Your task to perform on an android device: turn on the 12-hour format for clock Image 0: 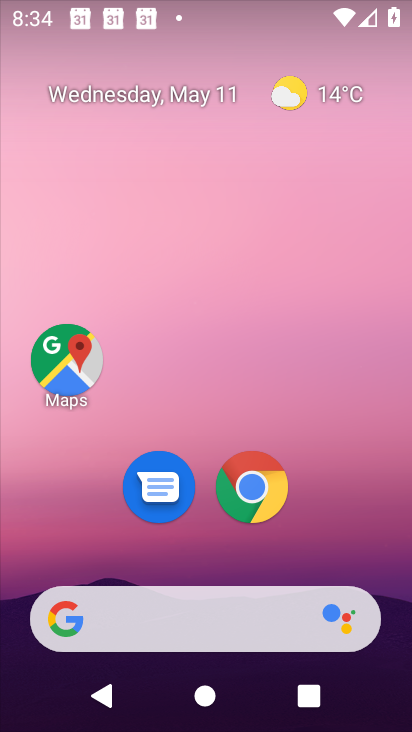
Step 0: drag from (224, 726) to (180, 42)
Your task to perform on an android device: turn on the 12-hour format for clock Image 1: 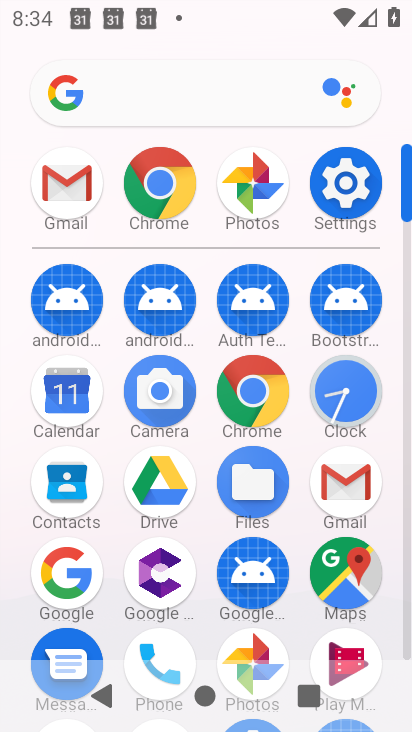
Step 1: click (351, 383)
Your task to perform on an android device: turn on the 12-hour format for clock Image 2: 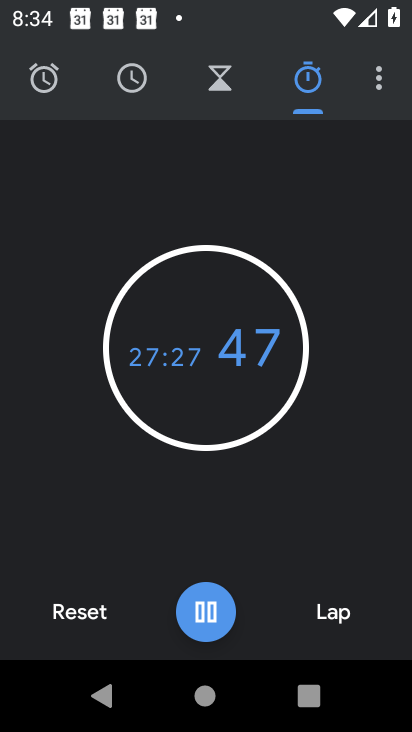
Step 2: click (379, 80)
Your task to perform on an android device: turn on the 12-hour format for clock Image 3: 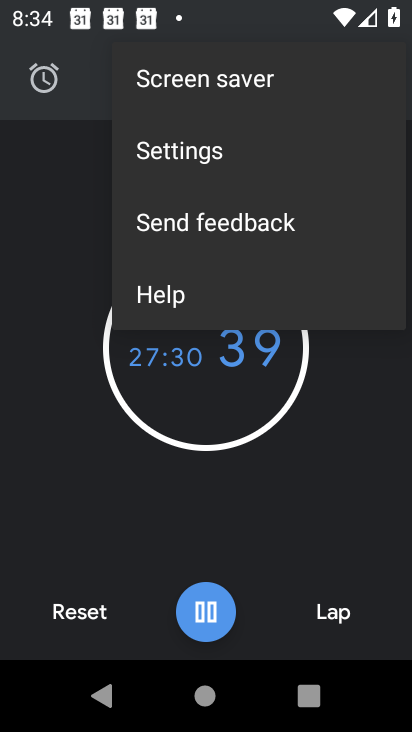
Step 3: click (194, 152)
Your task to perform on an android device: turn on the 12-hour format for clock Image 4: 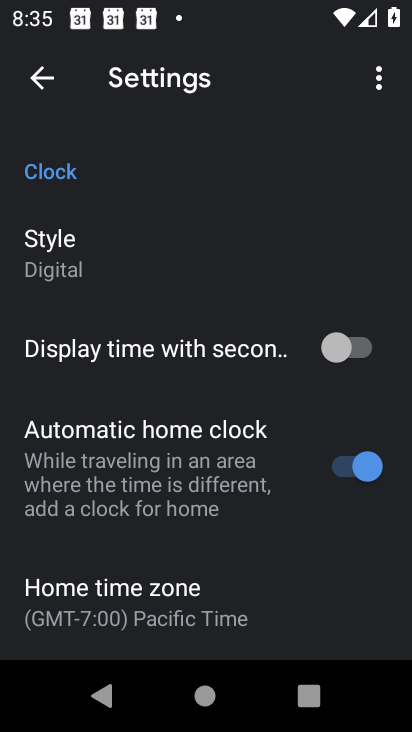
Step 4: drag from (146, 566) to (147, 191)
Your task to perform on an android device: turn on the 12-hour format for clock Image 5: 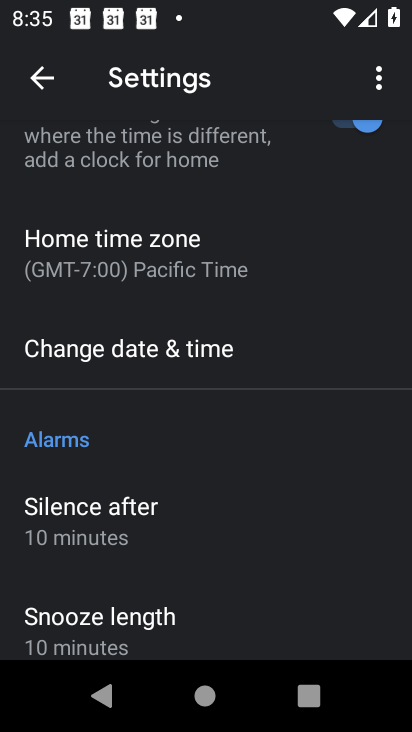
Step 5: click (141, 350)
Your task to perform on an android device: turn on the 12-hour format for clock Image 6: 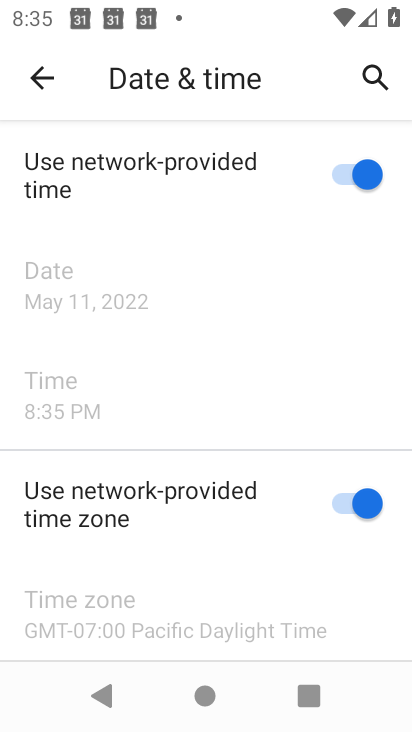
Step 6: task complete